Your task to perform on an android device: Set the phone to "Do not disturb". Image 0: 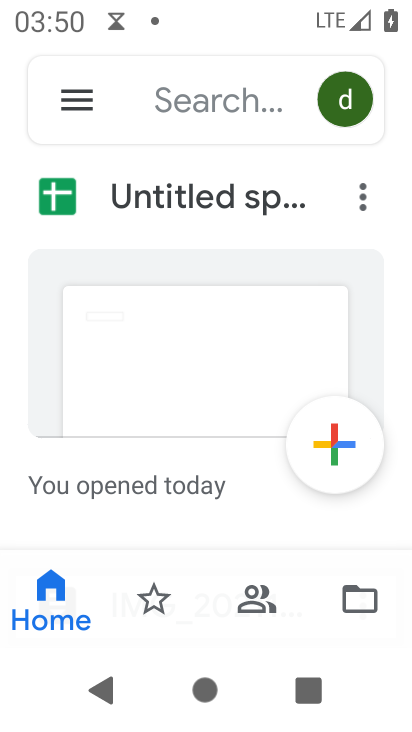
Step 0: press home button
Your task to perform on an android device: Set the phone to "Do not disturb". Image 1: 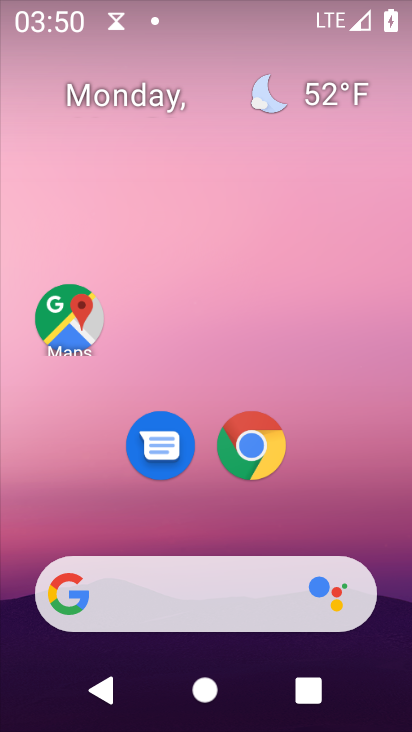
Step 1: drag from (198, 509) to (209, 17)
Your task to perform on an android device: Set the phone to "Do not disturb". Image 2: 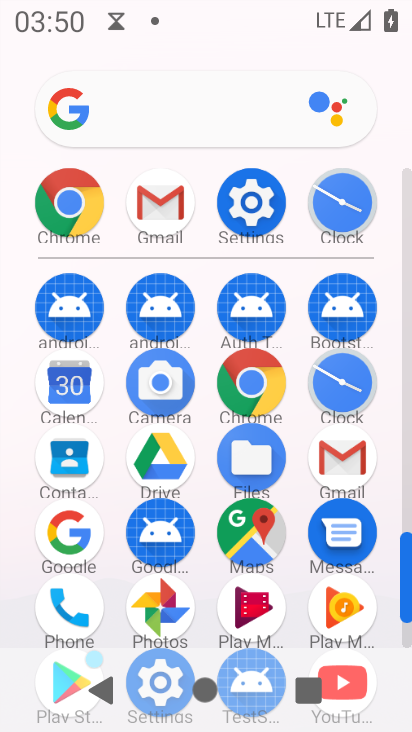
Step 2: click (257, 190)
Your task to perform on an android device: Set the phone to "Do not disturb". Image 3: 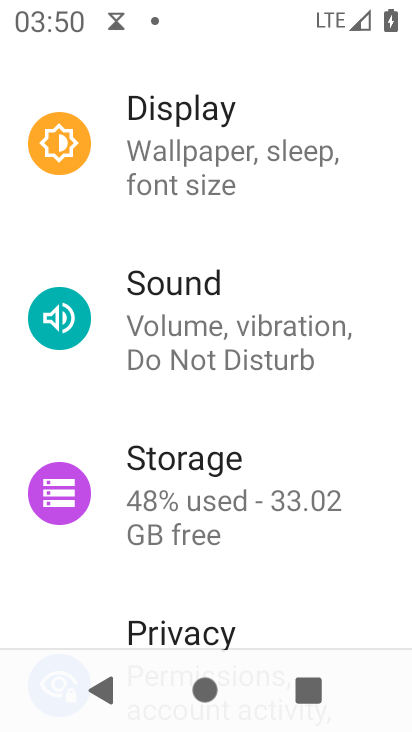
Step 3: click (198, 345)
Your task to perform on an android device: Set the phone to "Do not disturb". Image 4: 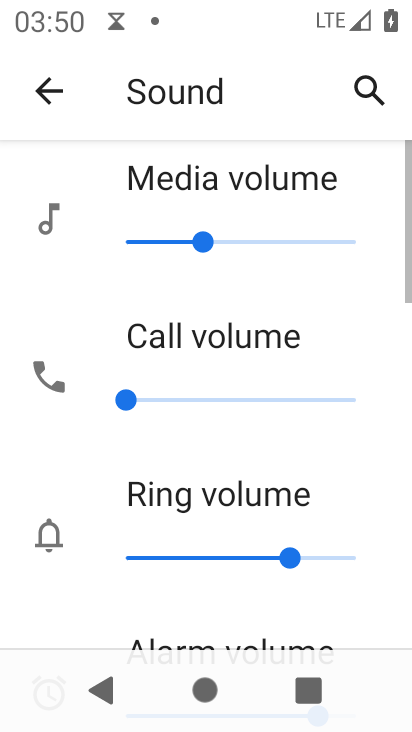
Step 4: drag from (194, 522) to (262, 131)
Your task to perform on an android device: Set the phone to "Do not disturb". Image 5: 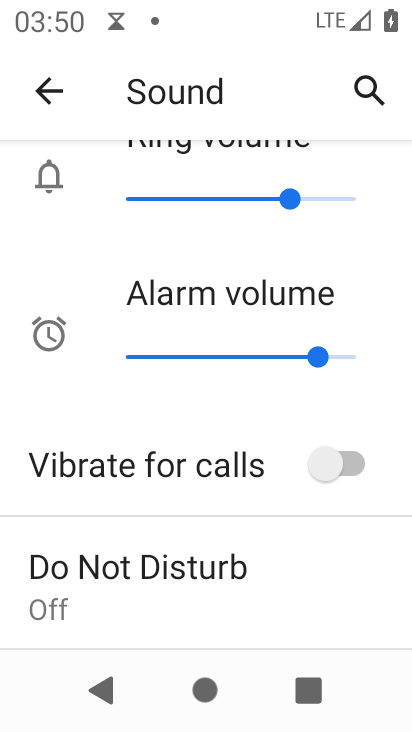
Step 5: click (140, 569)
Your task to perform on an android device: Set the phone to "Do not disturb". Image 6: 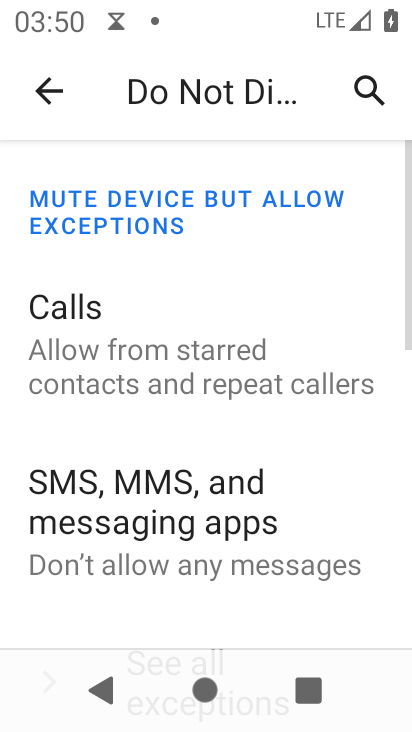
Step 6: drag from (195, 577) to (221, 136)
Your task to perform on an android device: Set the phone to "Do not disturb". Image 7: 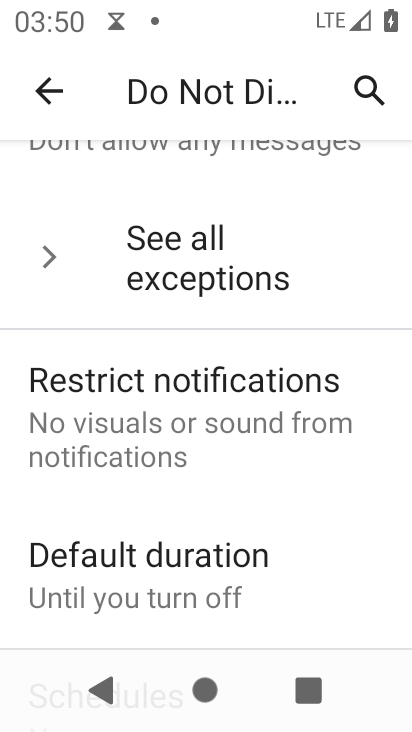
Step 7: drag from (158, 563) to (285, 23)
Your task to perform on an android device: Set the phone to "Do not disturb". Image 8: 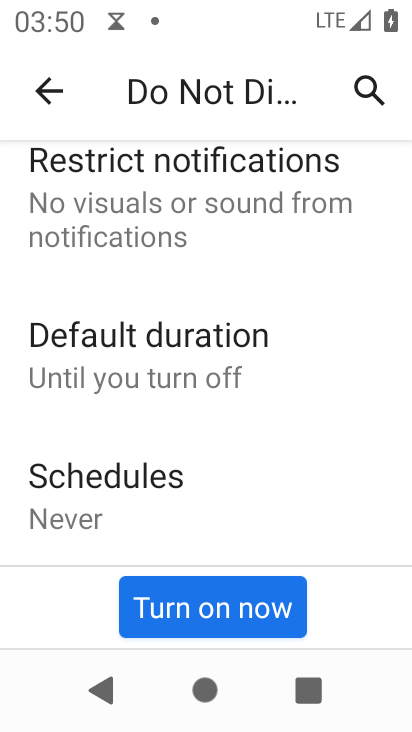
Step 8: click (221, 611)
Your task to perform on an android device: Set the phone to "Do not disturb". Image 9: 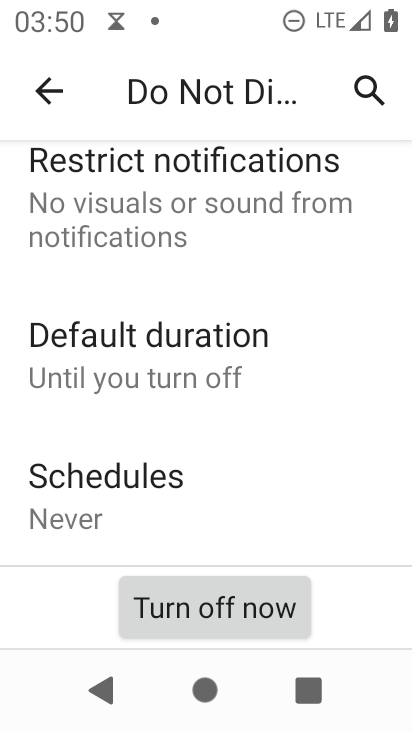
Step 9: task complete